Your task to perform on an android device: Go to Yahoo.com Image 0: 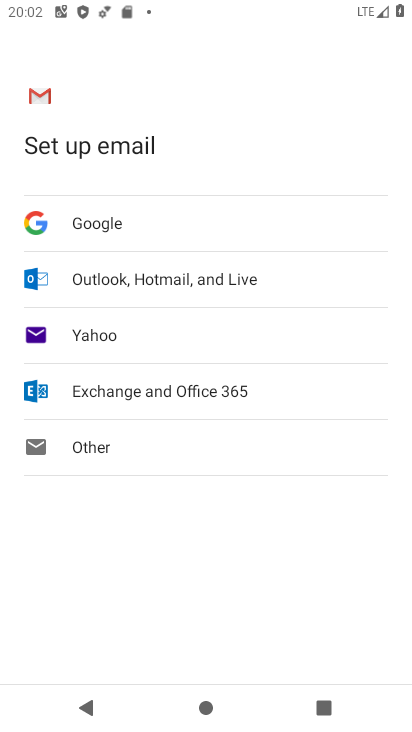
Step 0: press home button
Your task to perform on an android device: Go to Yahoo.com Image 1: 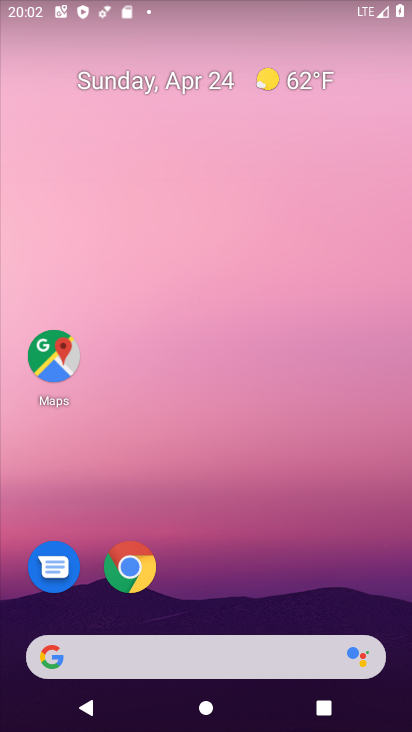
Step 1: click (128, 567)
Your task to perform on an android device: Go to Yahoo.com Image 2: 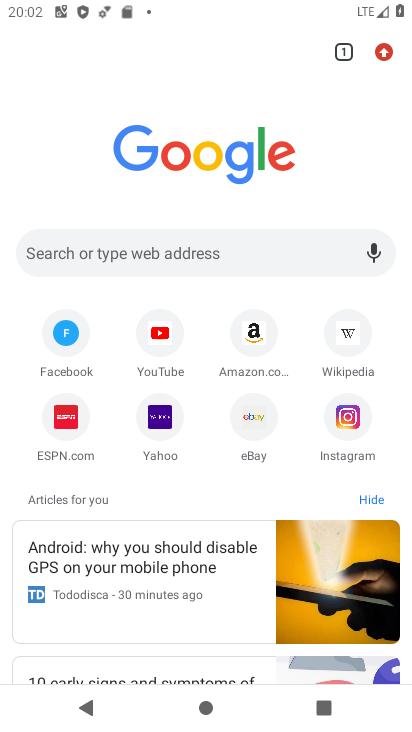
Step 2: click (229, 254)
Your task to perform on an android device: Go to Yahoo.com Image 3: 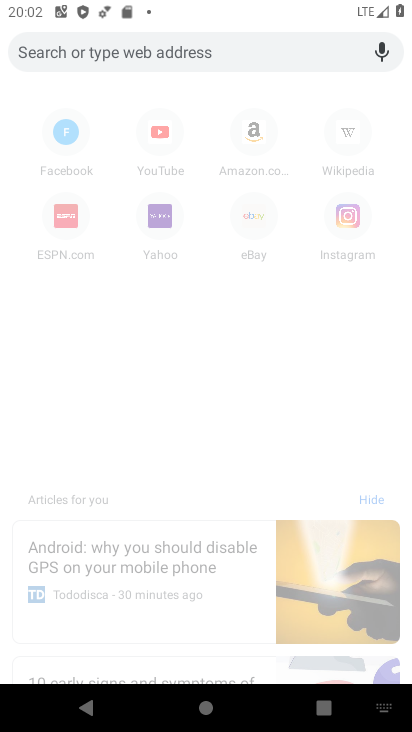
Step 3: type "Yahoo.com"
Your task to perform on an android device: Go to Yahoo.com Image 4: 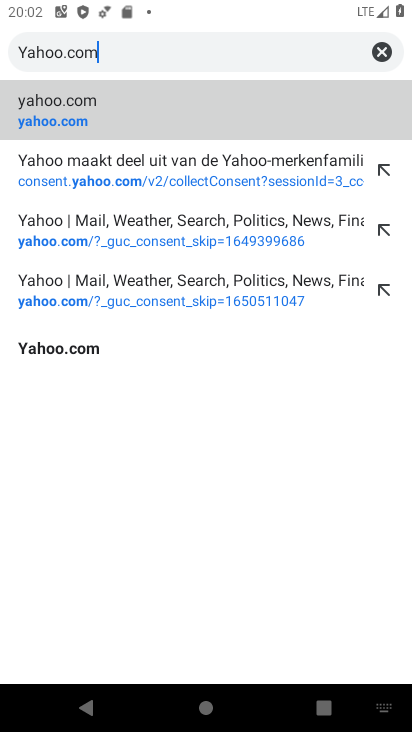
Step 4: click (67, 346)
Your task to perform on an android device: Go to Yahoo.com Image 5: 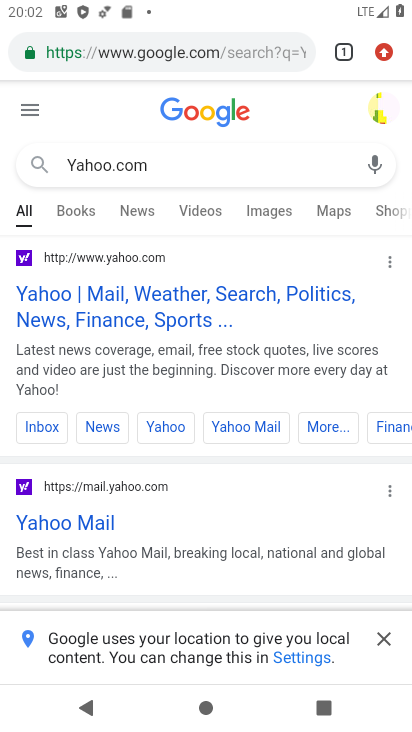
Step 5: task complete